Your task to perform on an android device: change the upload size in google photos Image 0: 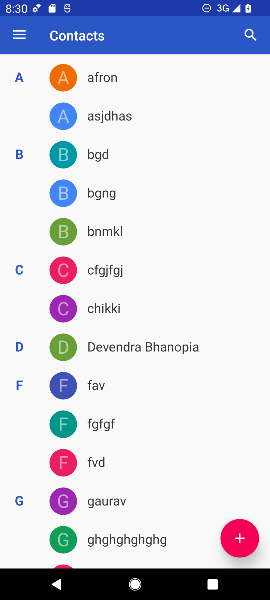
Step 0: press home button
Your task to perform on an android device: change the upload size in google photos Image 1: 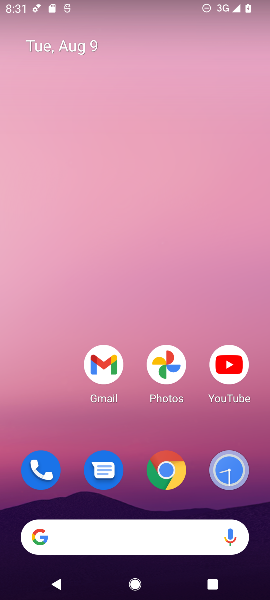
Step 1: click (166, 364)
Your task to perform on an android device: change the upload size in google photos Image 2: 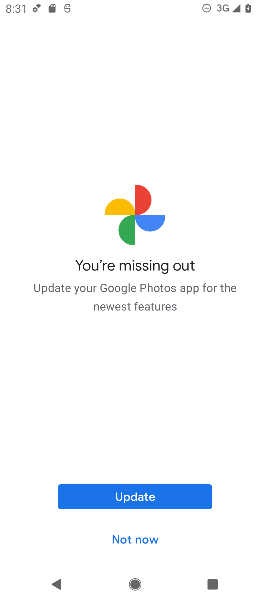
Step 2: click (140, 495)
Your task to perform on an android device: change the upload size in google photos Image 3: 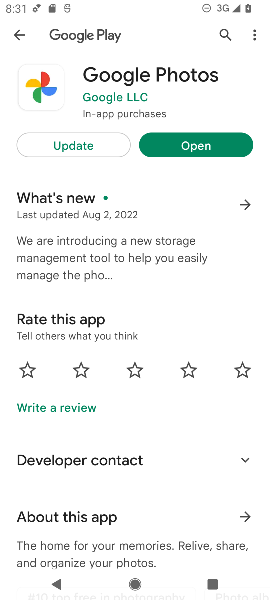
Step 3: click (81, 146)
Your task to perform on an android device: change the upload size in google photos Image 4: 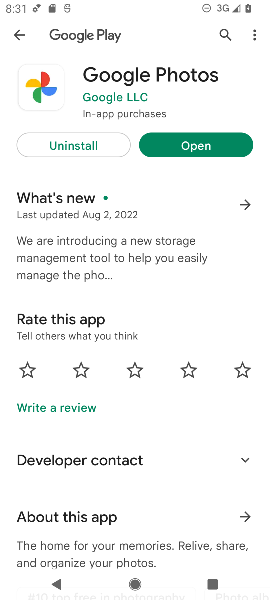
Step 4: click (197, 146)
Your task to perform on an android device: change the upload size in google photos Image 5: 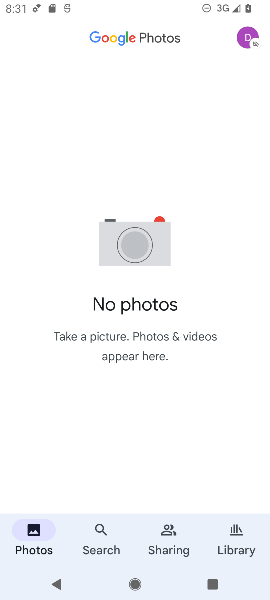
Step 5: click (100, 529)
Your task to perform on an android device: change the upload size in google photos Image 6: 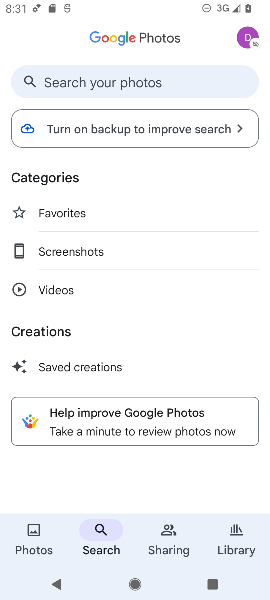
Step 6: click (72, 215)
Your task to perform on an android device: change the upload size in google photos Image 7: 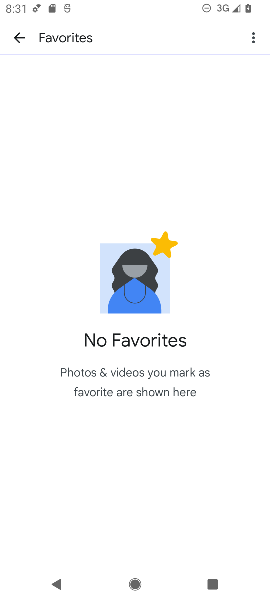
Step 7: press back button
Your task to perform on an android device: change the upload size in google photos Image 8: 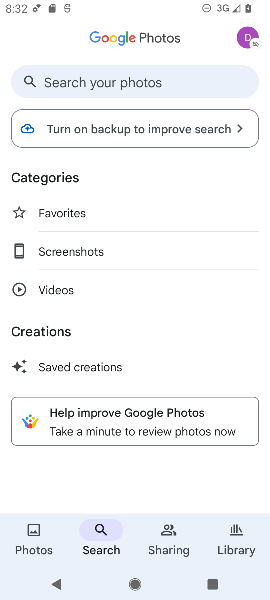
Step 8: click (232, 534)
Your task to perform on an android device: change the upload size in google photos Image 9: 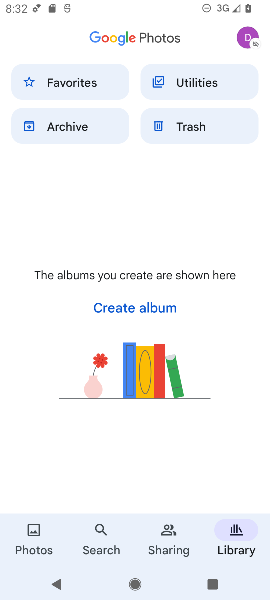
Step 9: click (247, 37)
Your task to perform on an android device: change the upload size in google photos Image 10: 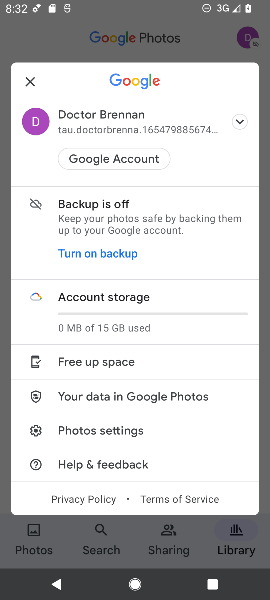
Step 10: click (129, 432)
Your task to perform on an android device: change the upload size in google photos Image 11: 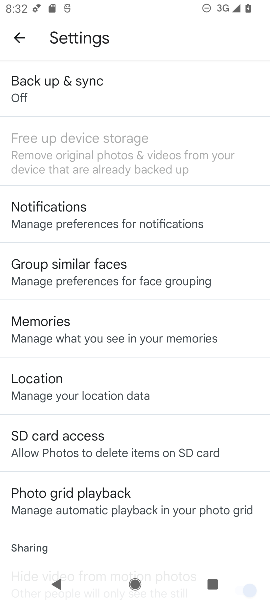
Step 11: click (123, 219)
Your task to perform on an android device: change the upload size in google photos Image 12: 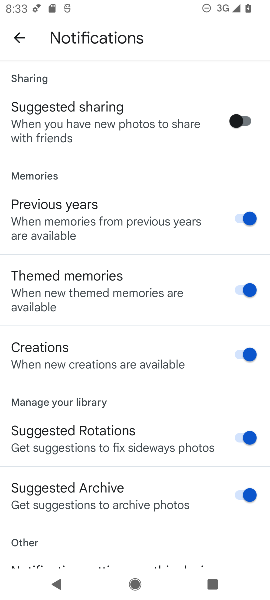
Step 12: drag from (69, 415) to (172, 255)
Your task to perform on an android device: change the upload size in google photos Image 13: 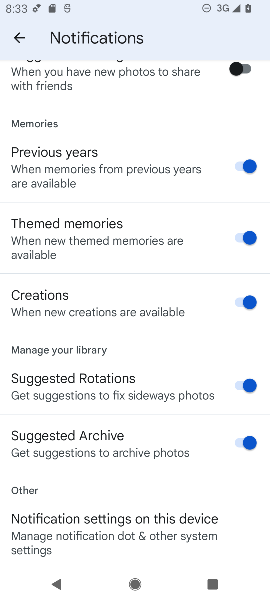
Step 13: drag from (88, 476) to (125, 369)
Your task to perform on an android device: change the upload size in google photos Image 14: 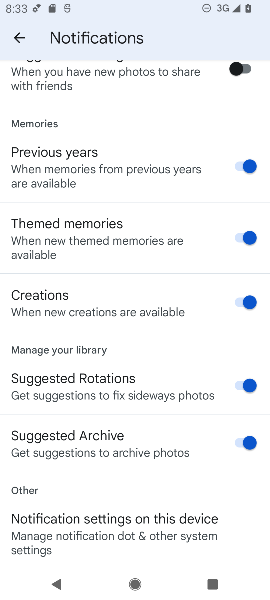
Step 14: click (116, 529)
Your task to perform on an android device: change the upload size in google photos Image 15: 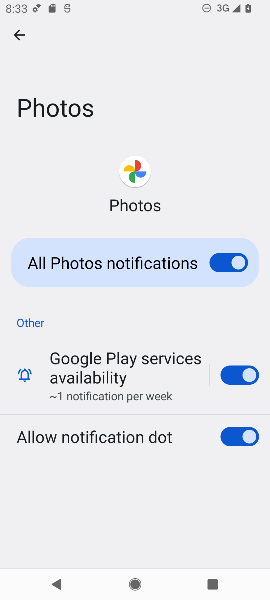
Step 15: press back button
Your task to perform on an android device: change the upload size in google photos Image 16: 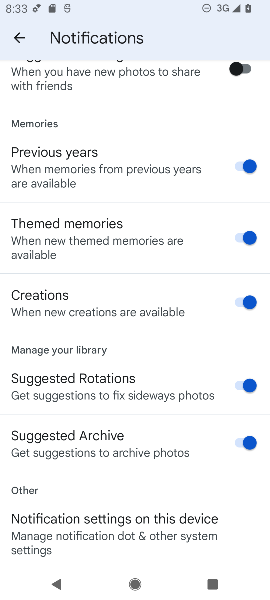
Step 16: drag from (173, 136) to (99, 477)
Your task to perform on an android device: change the upload size in google photos Image 17: 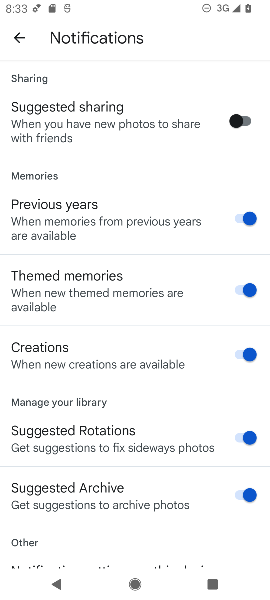
Step 17: press back button
Your task to perform on an android device: change the upload size in google photos Image 18: 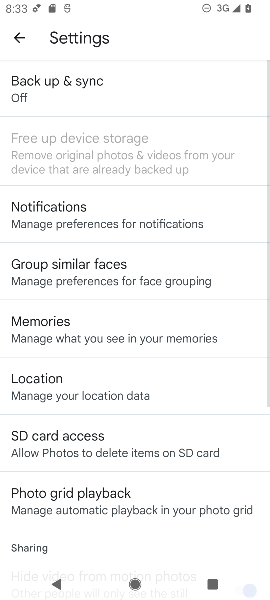
Step 18: click (81, 82)
Your task to perform on an android device: change the upload size in google photos Image 19: 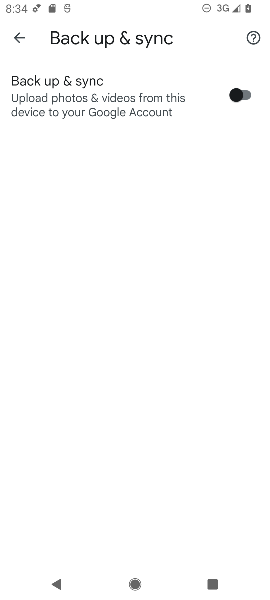
Step 19: task complete